Your task to perform on an android device: delete the emails in spam in the gmail app Image 0: 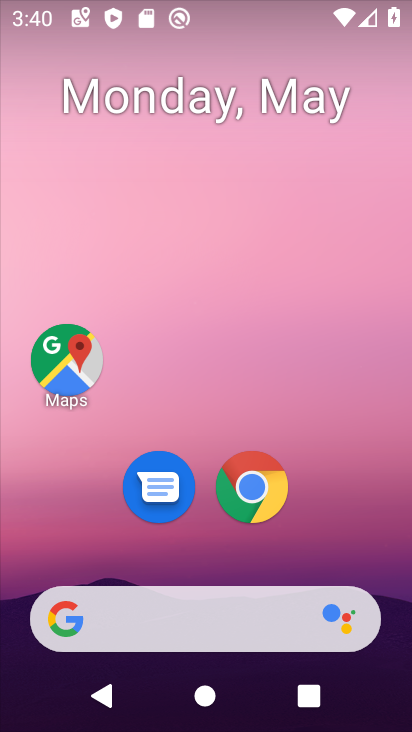
Step 0: drag from (160, 526) to (167, 171)
Your task to perform on an android device: delete the emails in spam in the gmail app Image 1: 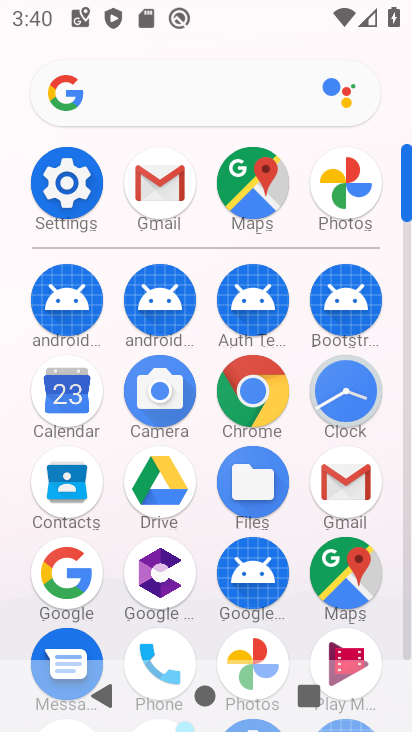
Step 1: click (372, 483)
Your task to perform on an android device: delete the emails in spam in the gmail app Image 2: 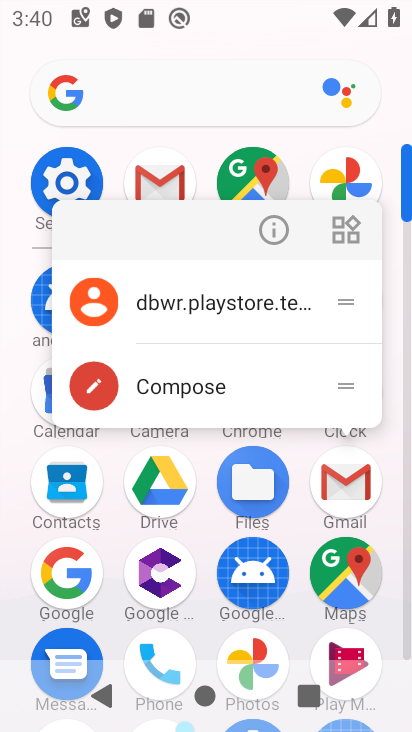
Step 2: click (355, 482)
Your task to perform on an android device: delete the emails in spam in the gmail app Image 3: 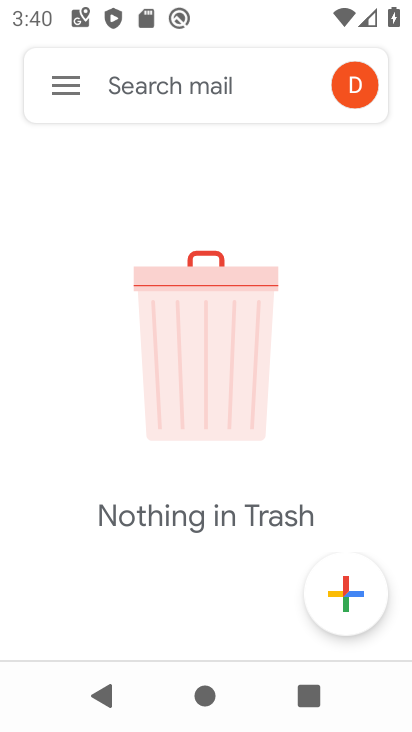
Step 3: click (74, 89)
Your task to perform on an android device: delete the emails in spam in the gmail app Image 4: 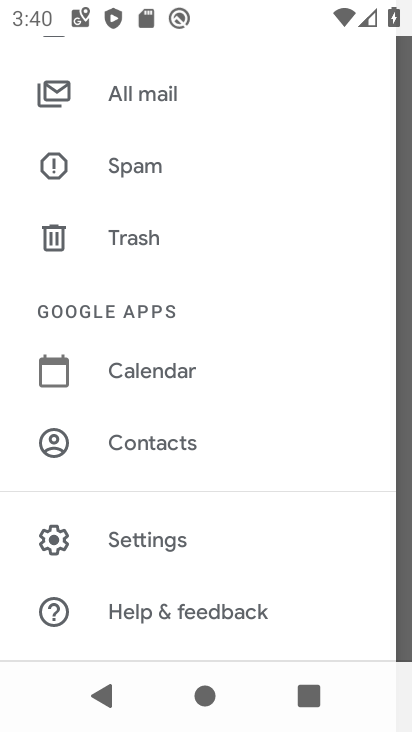
Step 4: click (119, 164)
Your task to perform on an android device: delete the emails in spam in the gmail app Image 5: 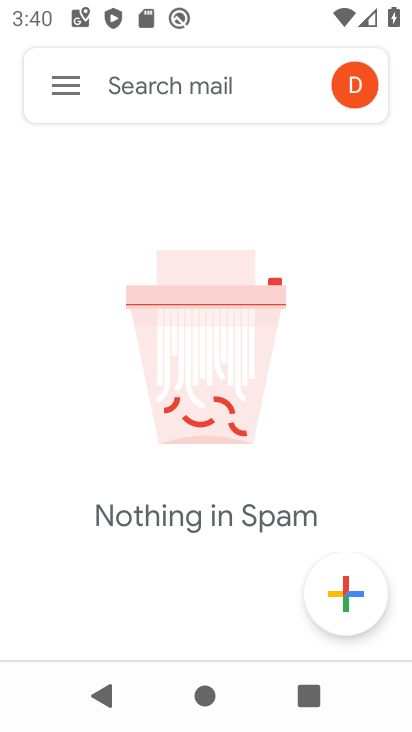
Step 5: task complete